Your task to perform on an android device: Open settings Image 0: 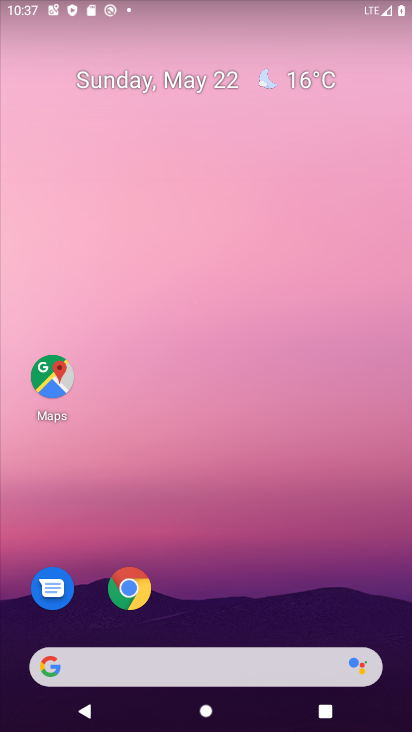
Step 0: drag from (210, 610) to (232, 204)
Your task to perform on an android device: Open settings Image 1: 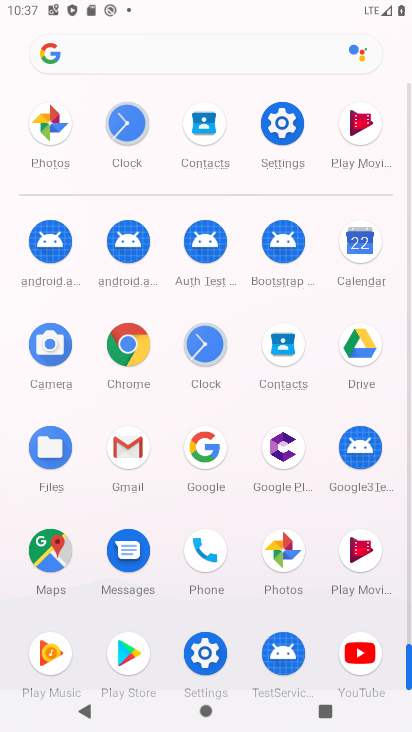
Step 1: click (285, 129)
Your task to perform on an android device: Open settings Image 2: 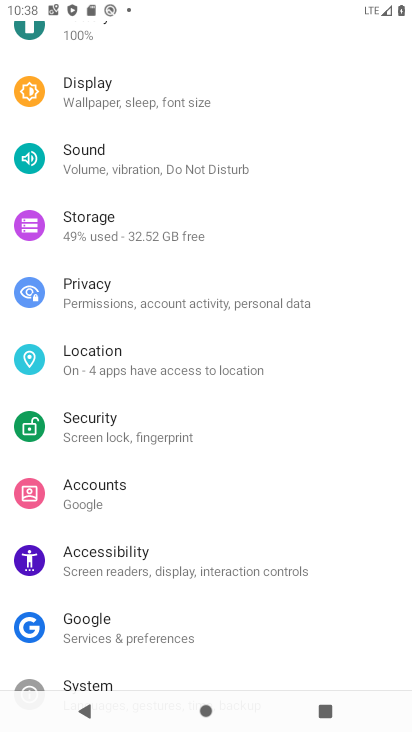
Step 2: task complete